Your task to perform on an android device: star an email in the gmail app Image 0: 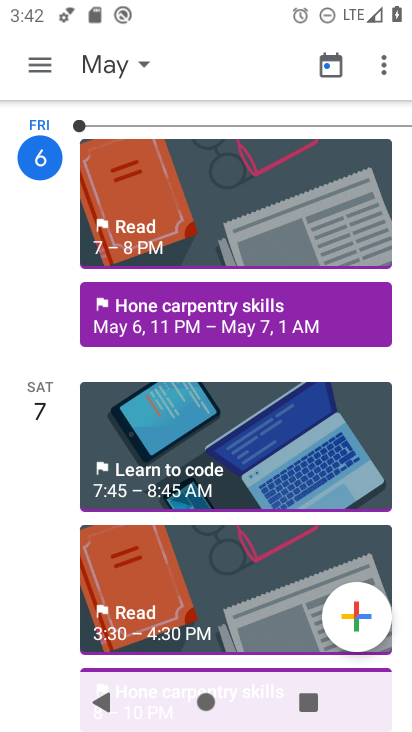
Step 0: press home button
Your task to perform on an android device: star an email in the gmail app Image 1: 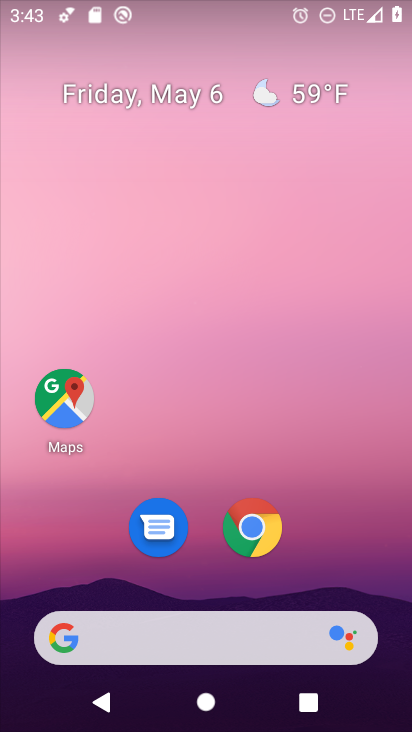
Step 1: drag from (296, 501) to (295, 37)
Your task to perform on an android device: star an email in the gmail app Image 2: 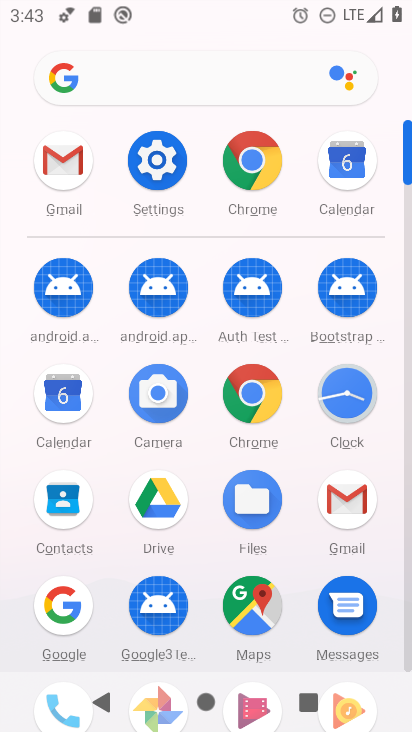
Step 2: click (64, 157)
Your task to perform on an android device: star an email in the gmail app Image 3: 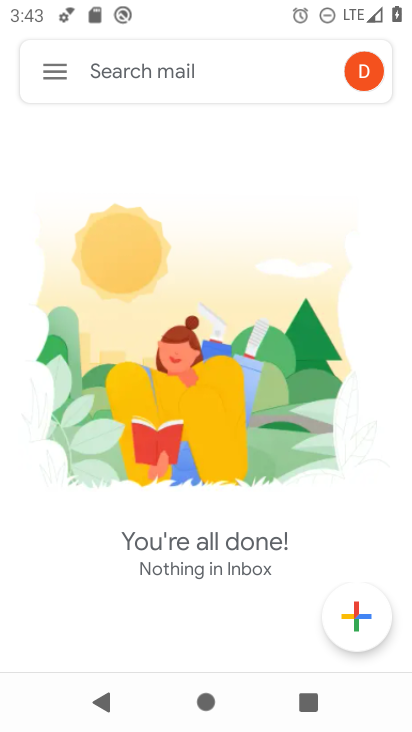
Step 3: click (54, 65)
Your task to perform on an android device: star an email in the gmail app Image 4: 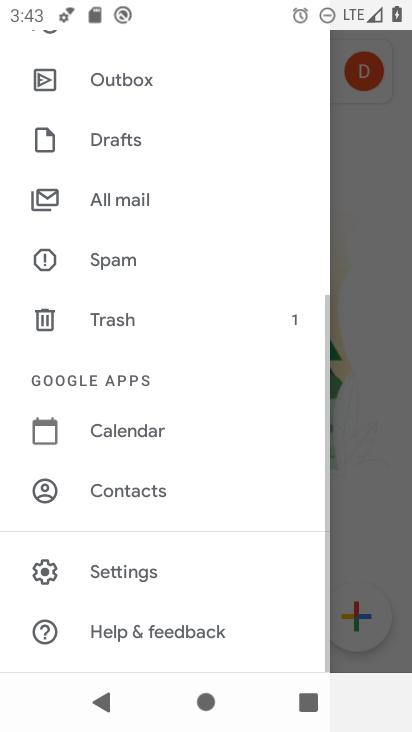
Step 4: drag from (135, 117) to (136, 400)
Your task to perform on an android device: star an email in the gmail app Image 5: 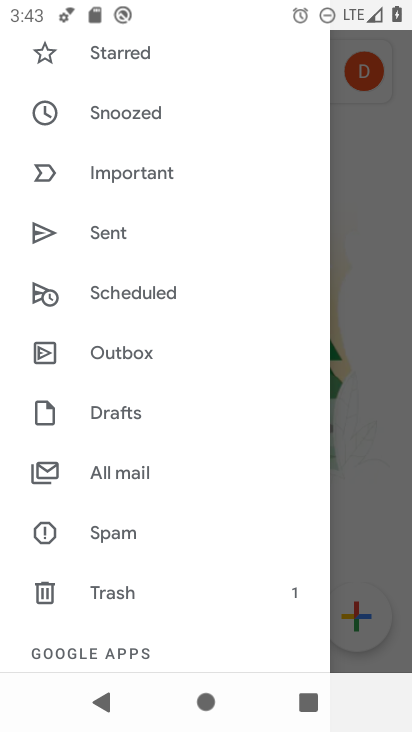
Step 5: click (121, 586)
Your task to perform on an android device: star an email in the gmail app Image 6: 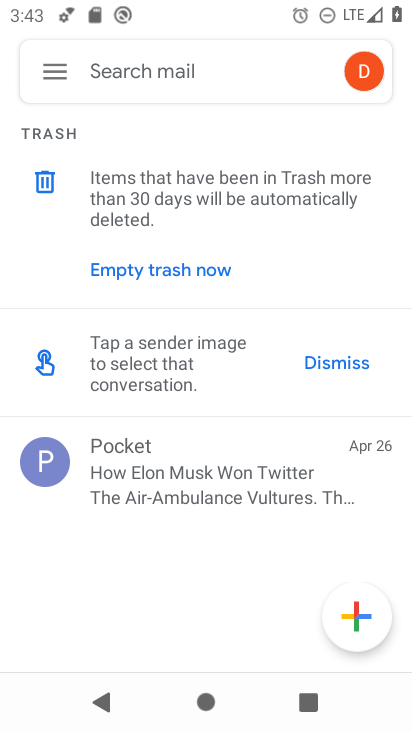
Step 6: click (152, 454)
Your task to perform on an android device: star an email in the gmail app Image 7: 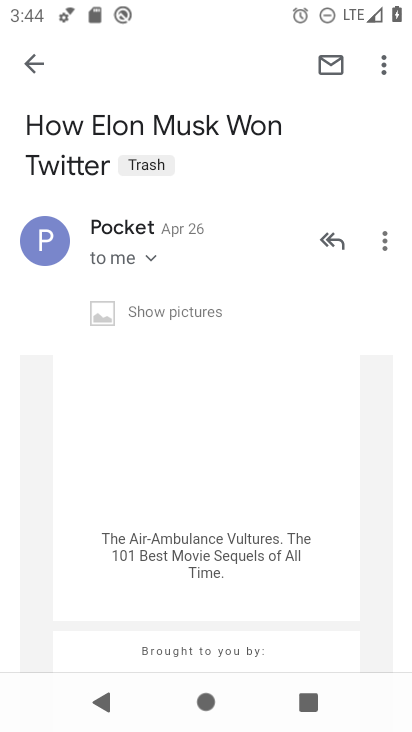
Step 7: click (33, 58)
Your task to perform on an android device: star an email in the gmail app Image 8: 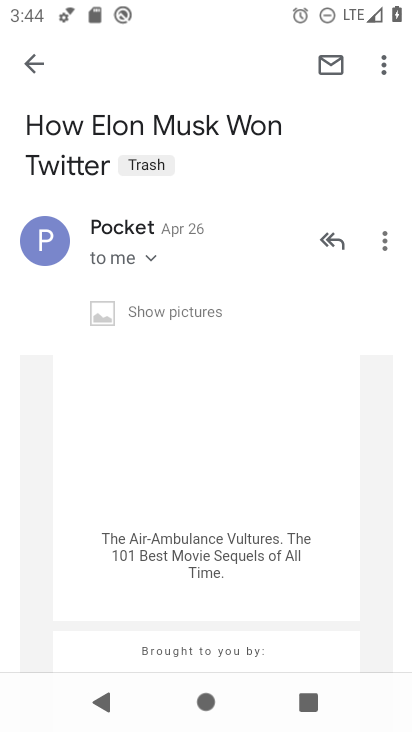
Step 8: click (33, 57)
Your task to perform on an android device: star an email in the gmail app Image 9: 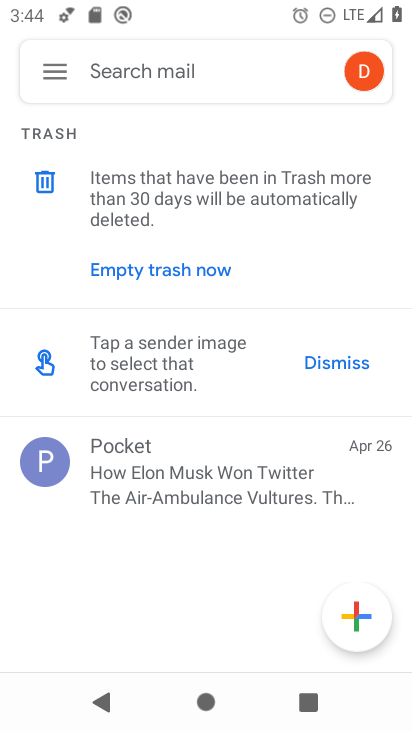
Step 9: click (58, 79)
Your task to perform on an android device: star an email in the gmail app Image 10: 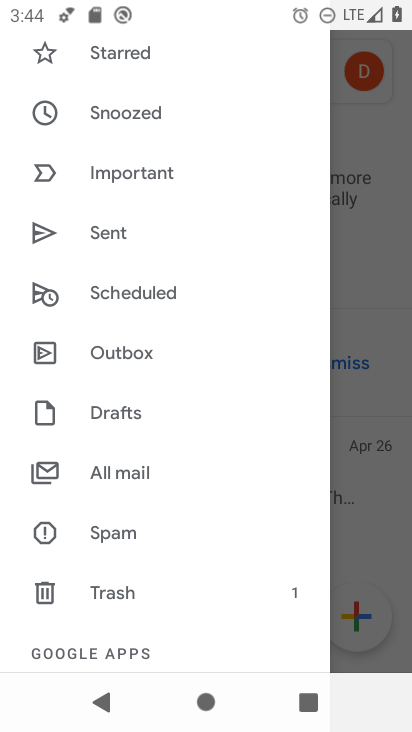
Step 10: click (117, 463)
Your task to perform on an android device: star an email in the gmail app Image 11: 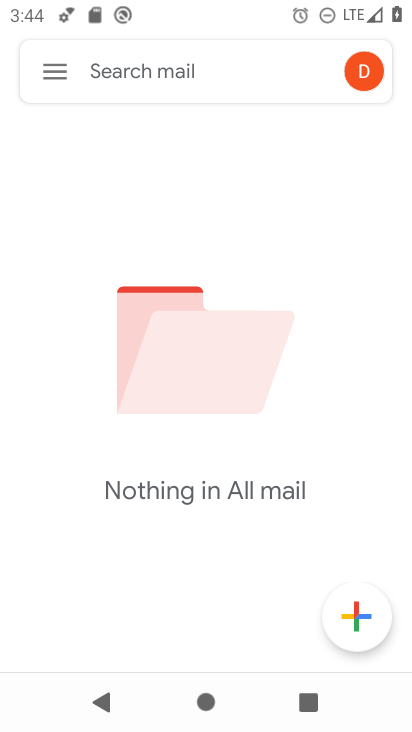
Step 11: task complete